Your task to perform on an android device: Search for Mexican restaurants on Maps Image 0: 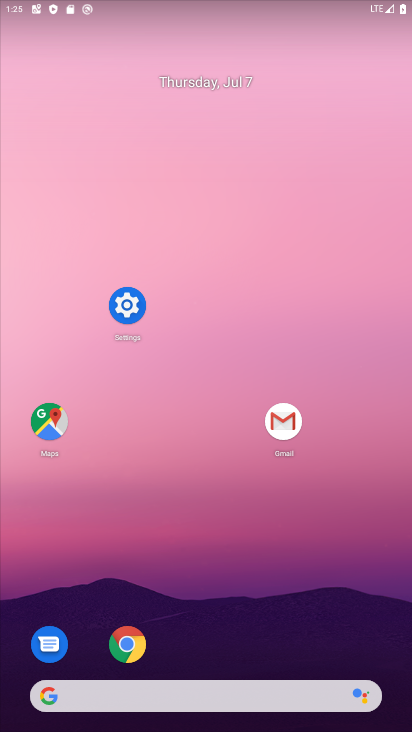
Step 0: click (60, 418)
Your task to perform on an android device: Search for Mexican restaurants on Maps Image 1: 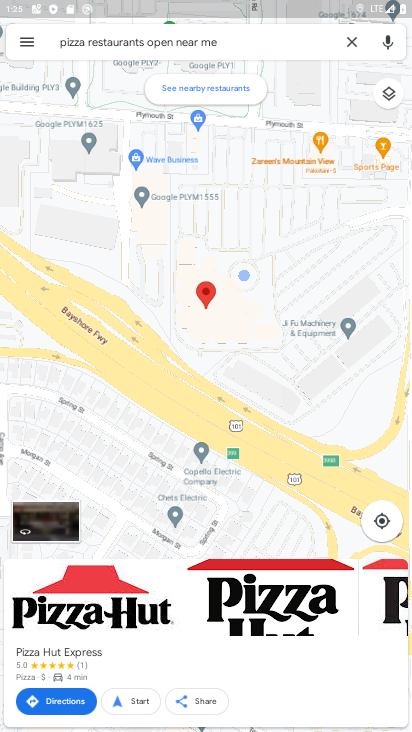
Step 1: click (354, 36)
Your task to perform on an android device: Search for Mexican restaurants on Maps Image 2: 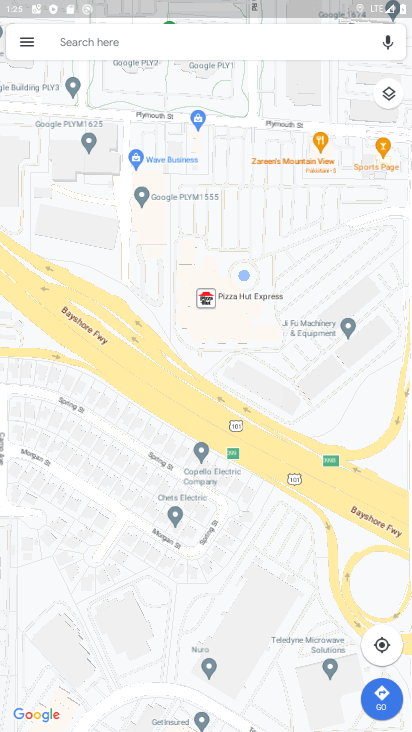
Step 2: click (123, 46)
Your task to perform on an android device: Search for Mexican restaurants on Maps Image 3: 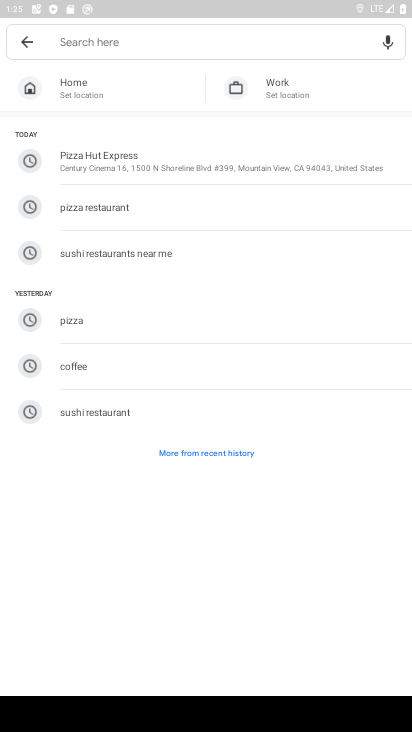
Step 3: type " Mexican restaurants"
Your task to perform on an android device: Search for Mexican restaurants on Maps Image 4: 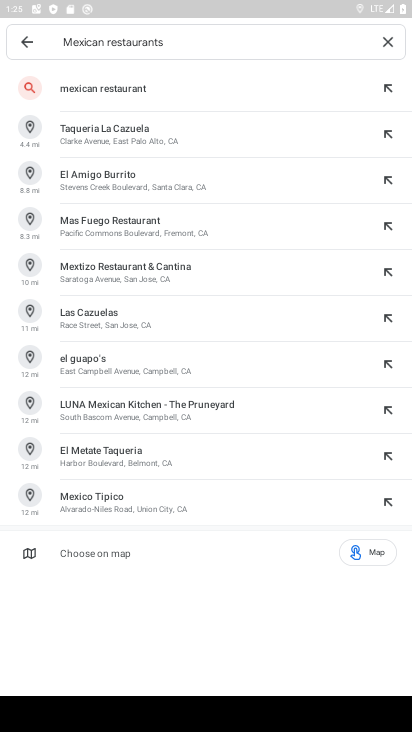
Step 4: click (126, 87)
Your task to perform on an android device: Search for Mexican restaurants on Maps Image 5: 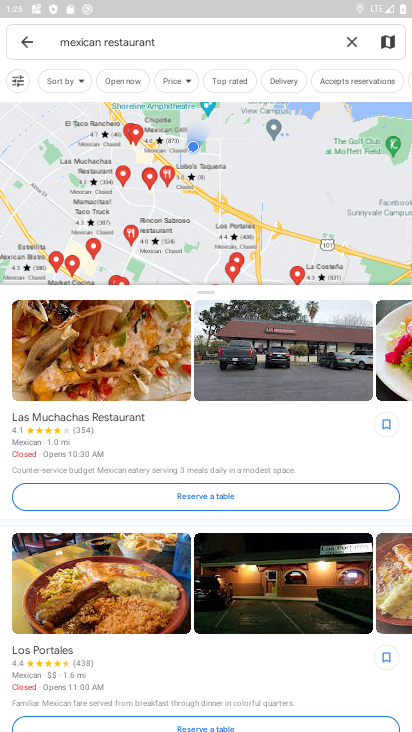
Step 5: task complete